Your task to perform on an android device: Open Google Image 0: 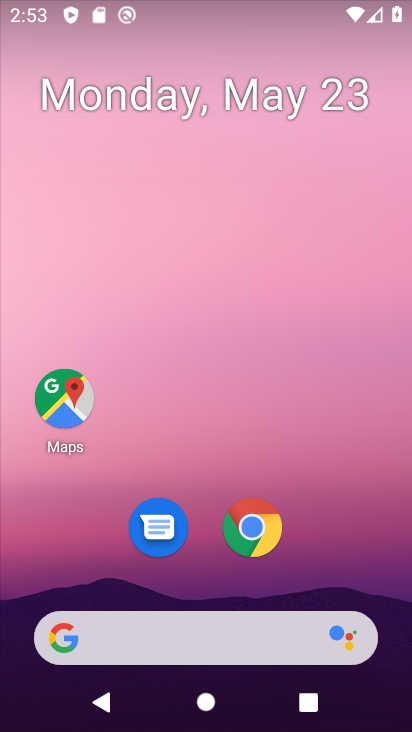
Step 0: press home button
Your task to perform on an android device: Open Google Image 1: 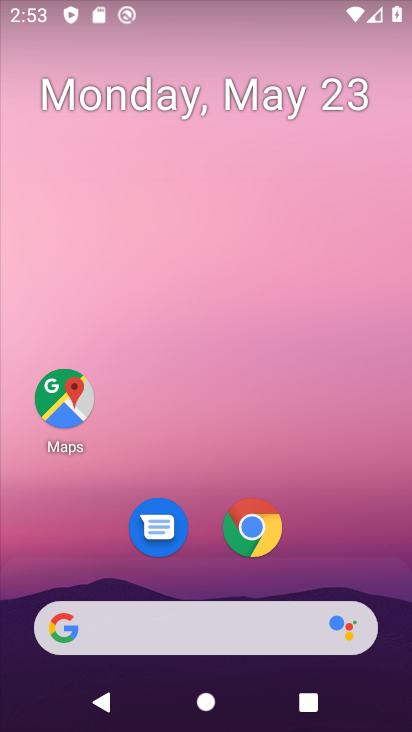
Step 1: drag from (219, 347) to (226, 46)
Your task to perform on an android device: Open Google Image 2: 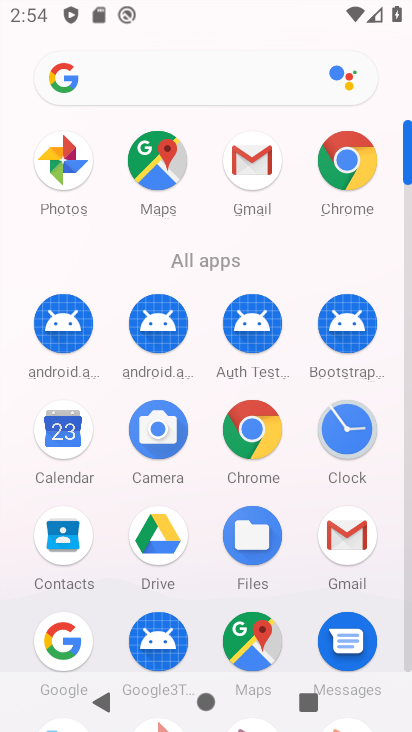
Step 2: click (63, 639)
Your task to perform on an android device: Open Google Image 3: 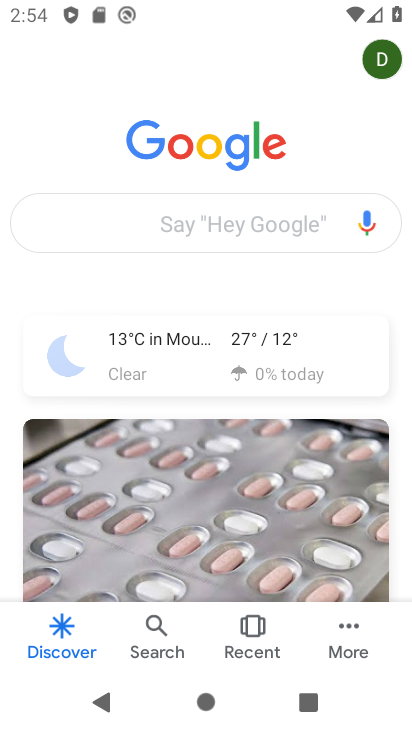
Step 3: task complete